Your task to perform on an android device: see tabs open on other devices in the chrome app Image 0: 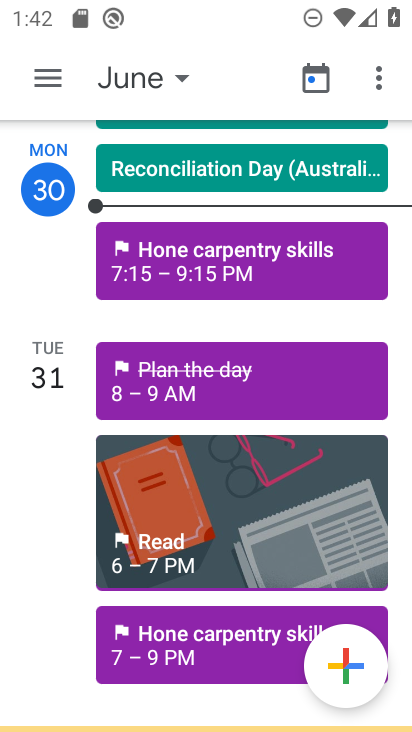
Step 0: press home button
Your task to perform on an android device: see tabs open on other devices in the chrome app Image 1: 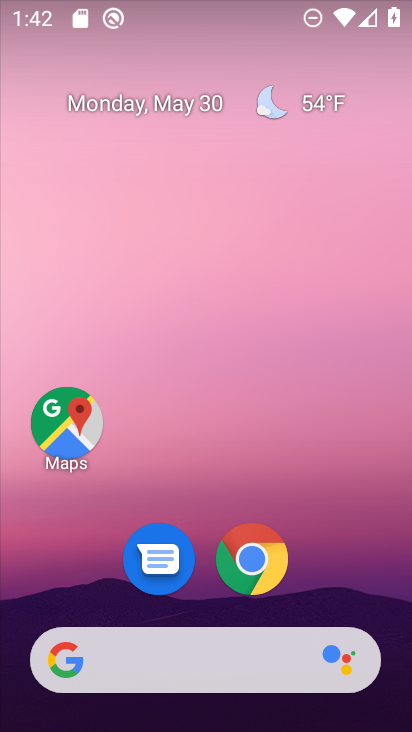
Step 1: click (244, 560)
Your task to perform on an android device: see tabs open on other devices in the chrome app Image 2: 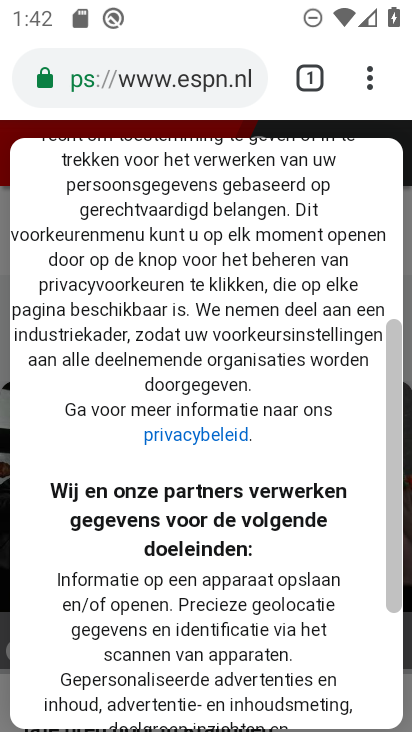
Step 2: click (369, 77)
Your task to perform on an android device: see tabs open on other devices in the chrome app Image 3: 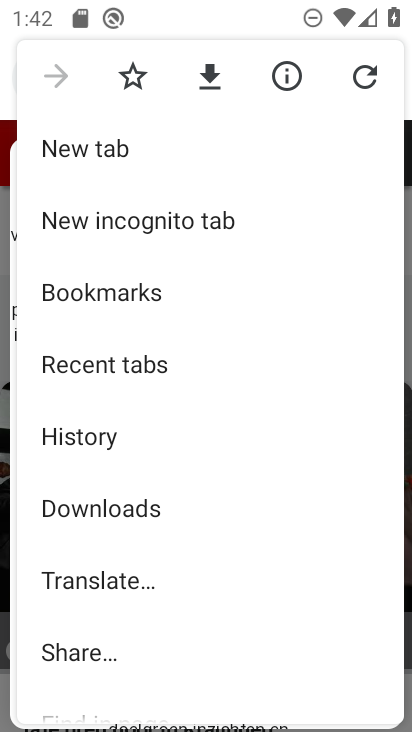
Step 3: click (144, 371)
Your task to perform on an android device: see tabs open on other devices in the chrome app Image 4: 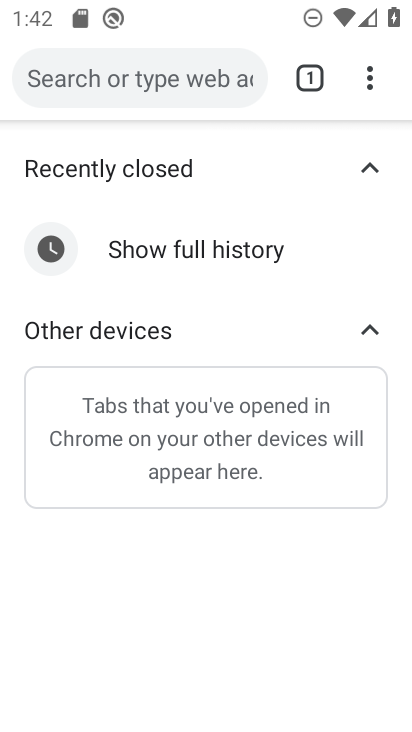
Step 4: task complete